Your task to perform on an android device: toggle notification dots Image 0: 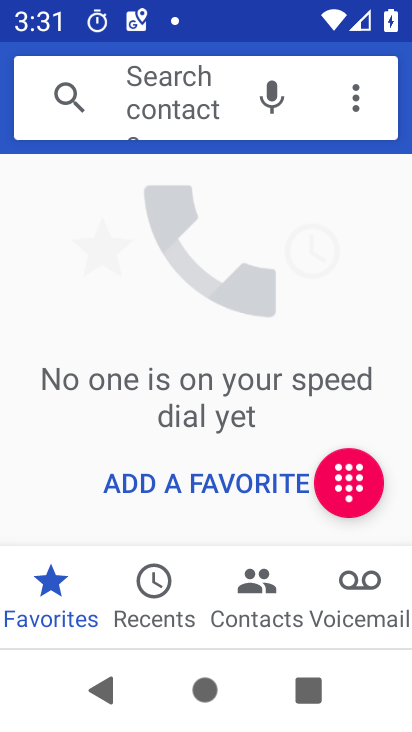
Step 0: press home button
Your task to perform on an android device: toggle notification dots Image 1: 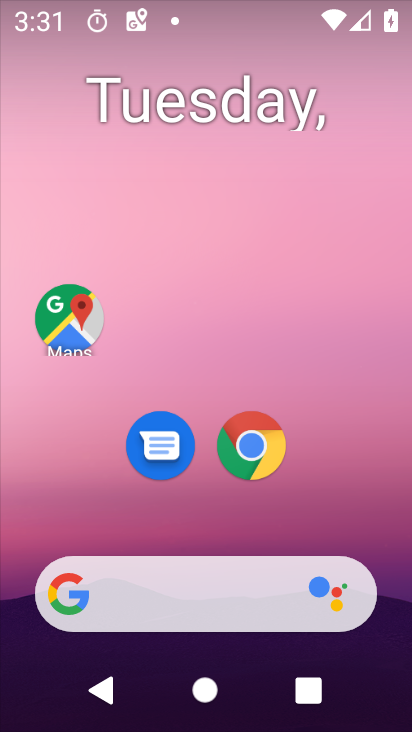
Step 1: drag from (189, 549) to (254, 18)
Your task to perform on an android device: toggle notification dots Image 2: 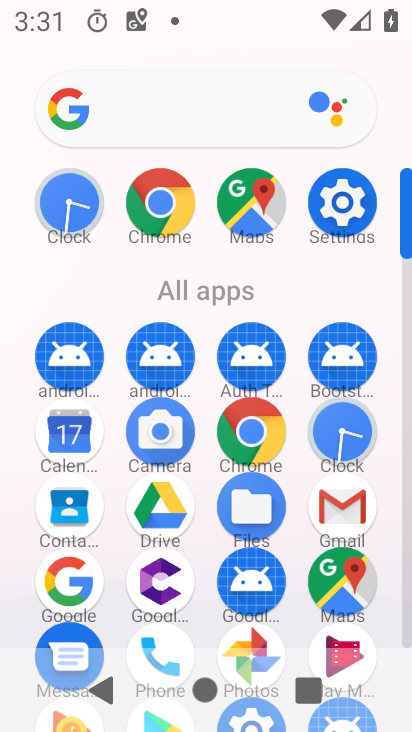
Step 2: click (356, 190)
Your task to perform on an android device: toggle notification dots Image 3: 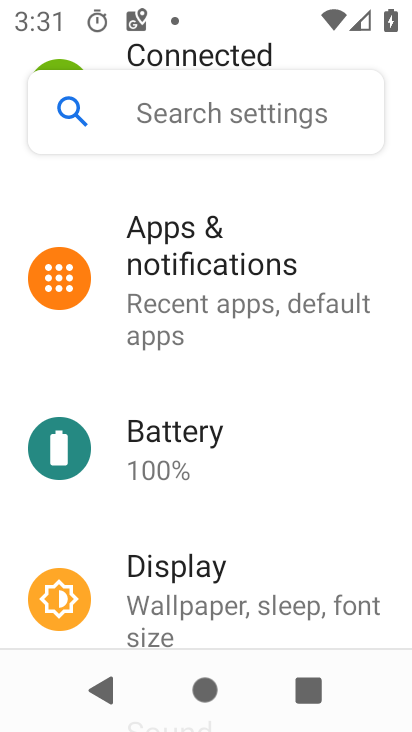
Step 3: click (203, 298)
Your task to perform on an android device: toggle notification dots Image 4: 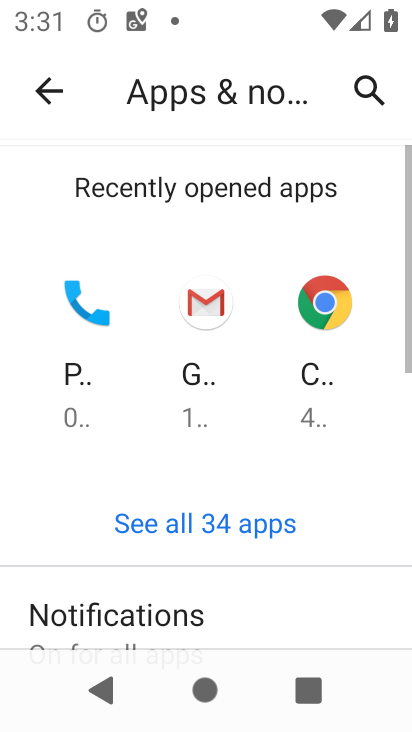
Step 4: click (208, 606)
Your task to perform on an android device: toggle notification dots Image 5: 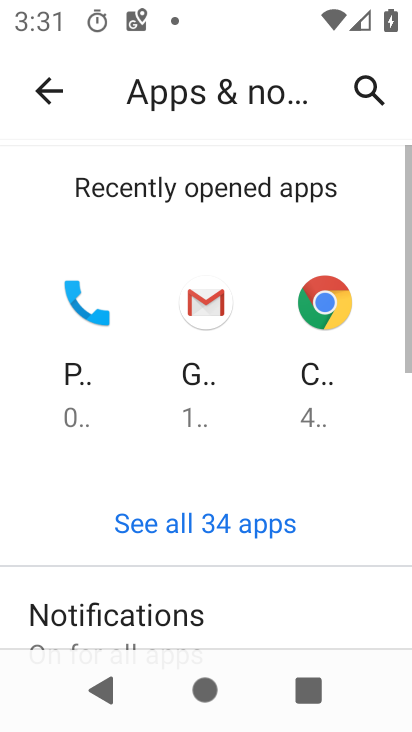
Step 5: drag from (207, 608) to (159, 80)
Your task to perform on an android device: toggle notification dots Image 6: 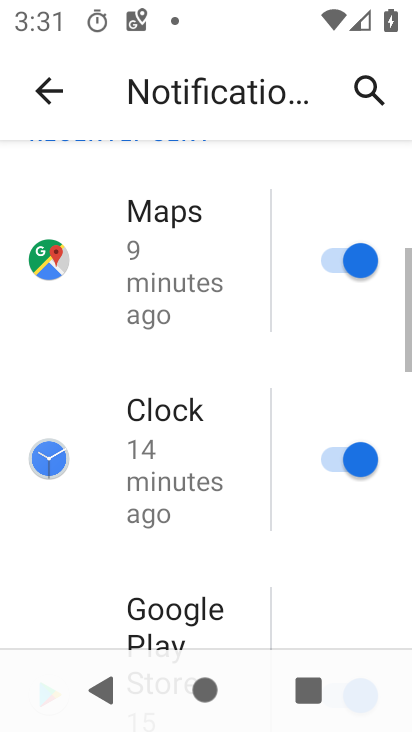
Step 6: drag from (230, 556) to (229, 7)
Your task to perform on an android device: toggle notification dots Image 7: 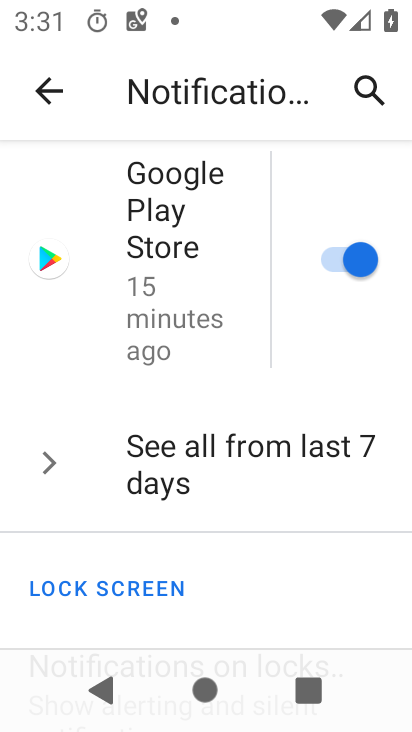
Step 7: drag from (265, 625) to (234, 137)
Your task to perform on an android device: toggle notification dots Image 8: 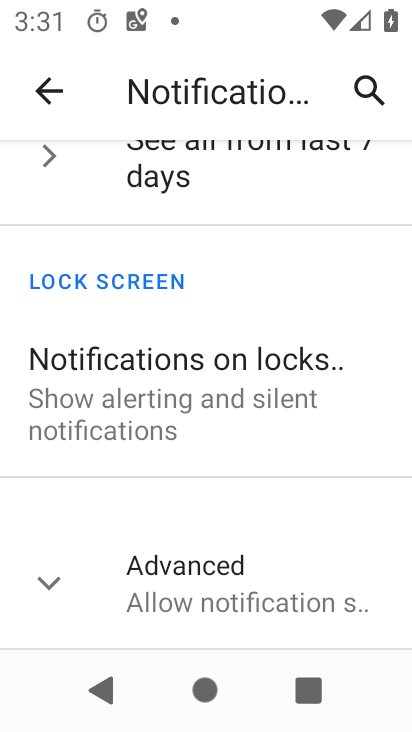
Step 8: click (201, 574)
Your task to perform on an android device: toggle notification dots Image 9: 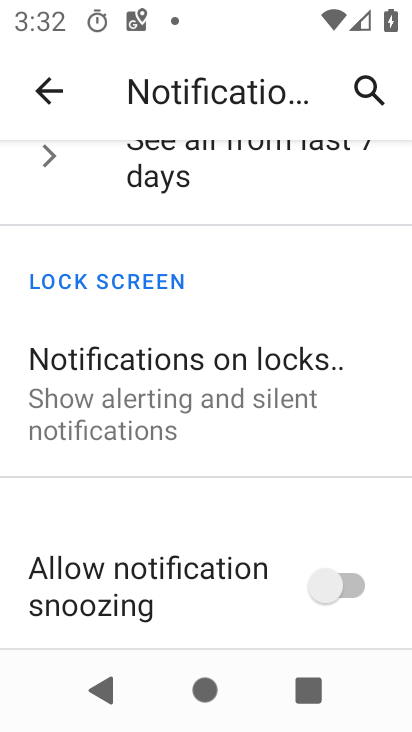
Step 9: drag from (225, 641) to (134, 21)
Your task to perform on an android device: toggle notification dots Image 10: 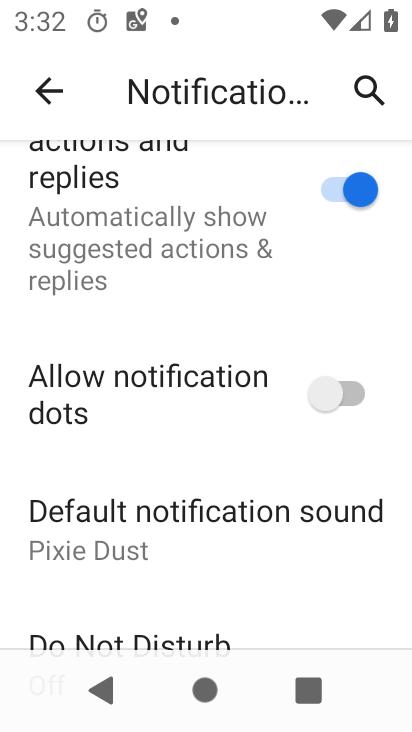
Step 10: click (321, 408)
Your task to perform on an android device: toggle notification dots Image 11: 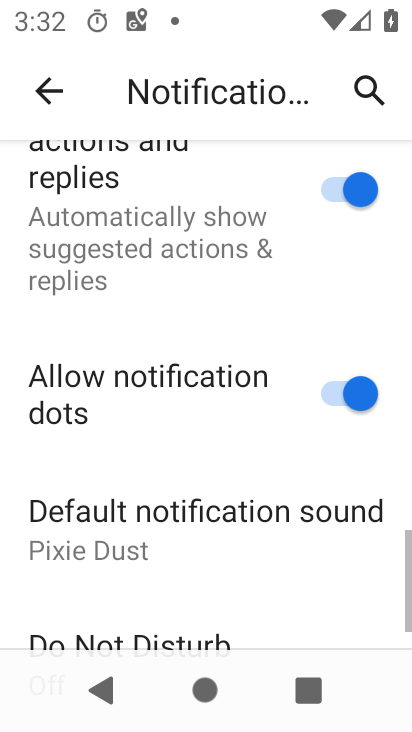
Step 11: task complete